Your task to perform on an android device: toggle show notifications on the lock screen Image 0: 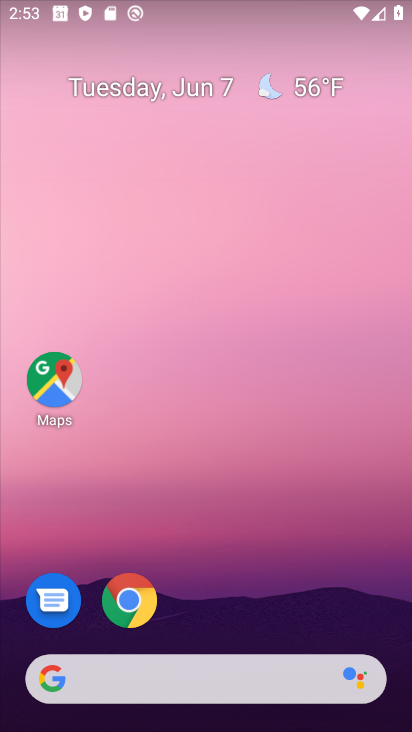
Step 0: drag from (382, 678) to (364, 109)
Your task to perform on an android device: toggle show notifications on the lock screen Image 1: 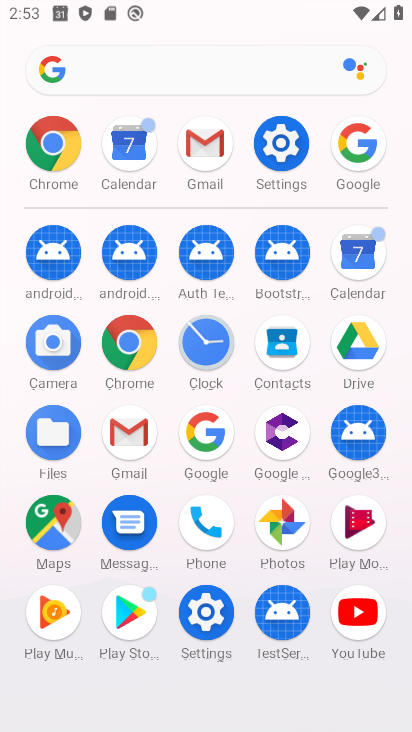
Step 1: click (293, 142)
Your task to perform on an android device: toggle show notifications on the lock screen Image 2: 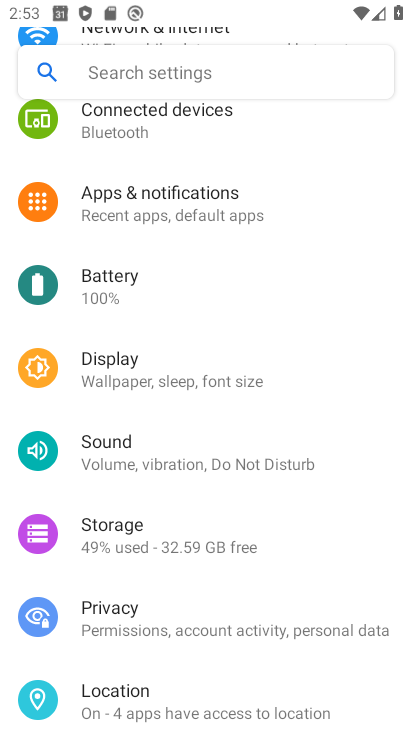
Step 2: click (177, 192)
Your task to perform on an android device: toggle show notifications on the lock screen Image 3: 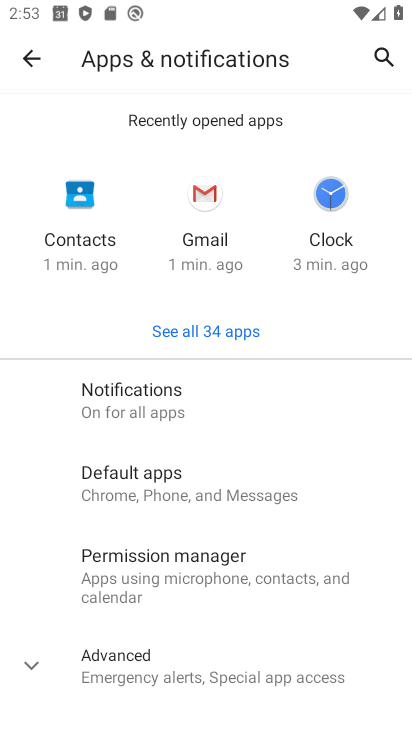
Step 3: click (118, 375)
Your task to perform on an android device: toggle show notifications on the lock screen Image 4: 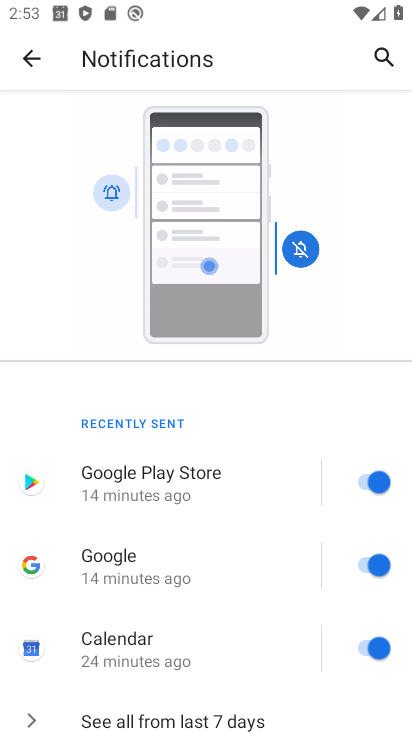
Step 4: drag from (249, 607) to (232, 238)
Your task to perform on an android device: toggle show notifications on the lock screen Image 5: 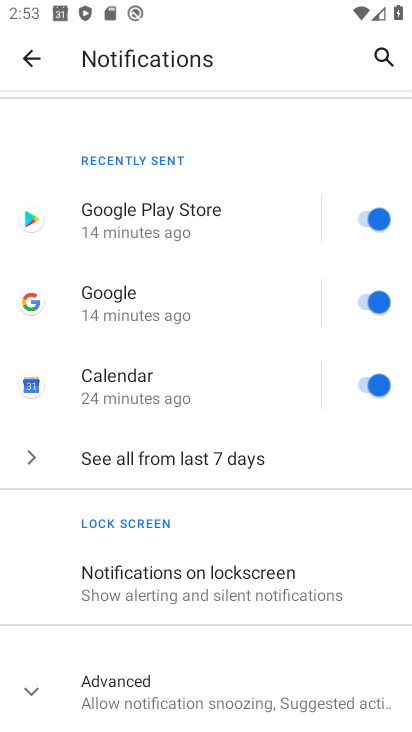
Step 5: click (192, 577)
Your task to perform on an android device: toggle show notifications on the lock screen Image 6: 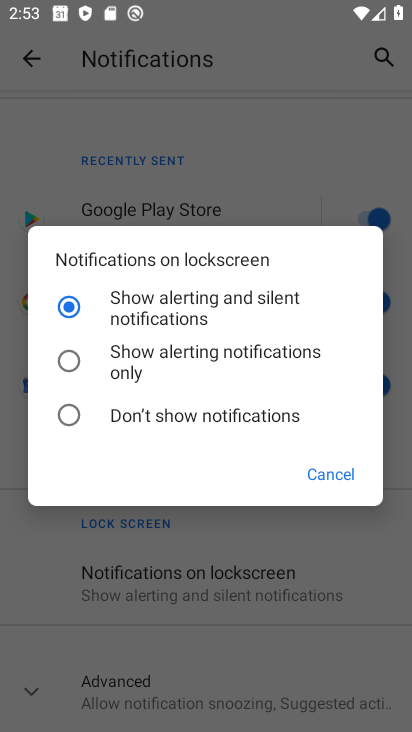
Step 6: click (65, 358)
Your task to perform on an android device: toggle show notifications on the lock screen Image 7: 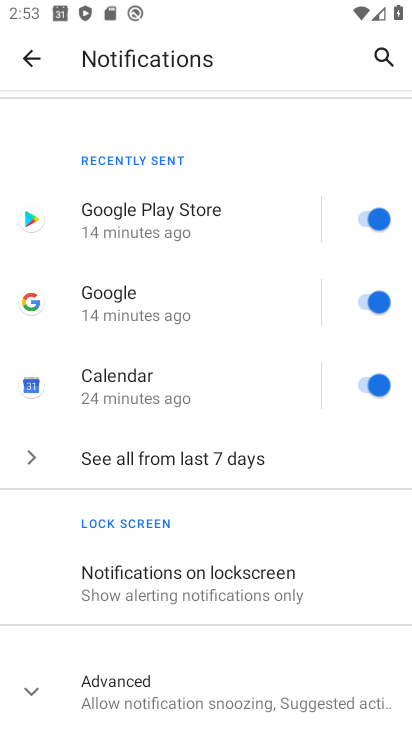
Step 7: task complete